Your task to perform on an android device: What's the weather going to be this weekend? Image 0: 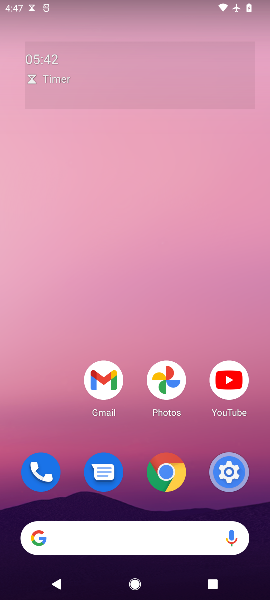
Step 0: drag from (67, 495) to (122, 174)
Your task to perform on an android device: What's the weather going to be this weekend? Image 1: 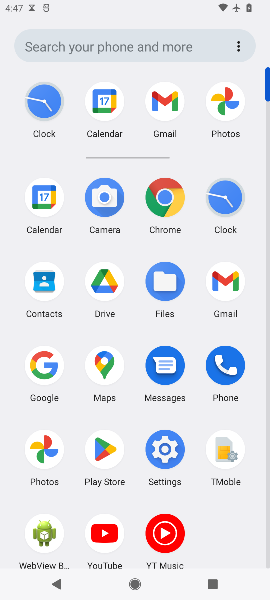
Step 1: click (34, 378)
Your task to perform on an android device: What's the weather going to be this weekend? Image 2: 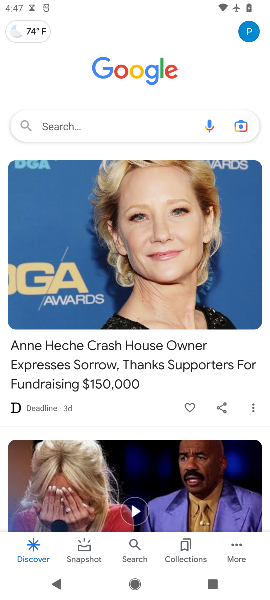
Step 2: click (122, 131)
Your task to perform on an android device: What's the weather going to be this weekend? Image 3: 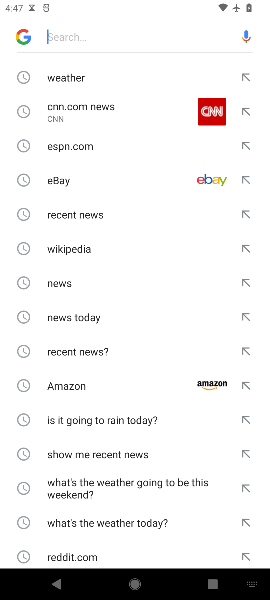
Step 3: click (84, 78)
Your task to perform on an android device: What's the weather going to be this weekend? Image 4: 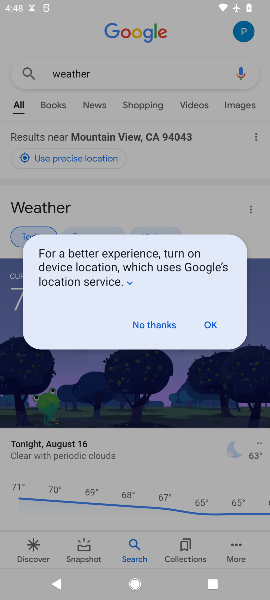
Step 4: click (164, 325)
Your task to perform on an android device: What's the weather going to be this weekend? Image 5: 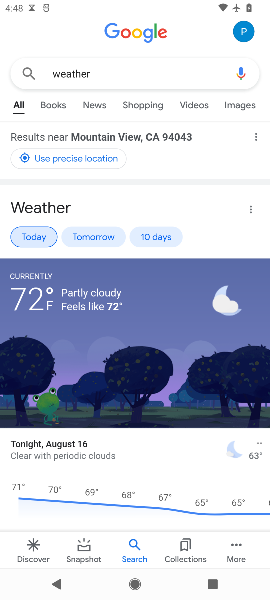
Step 5: click (146, 235)
Your task to perform on an android device: What's the weather going to be this weekend? Image 6: 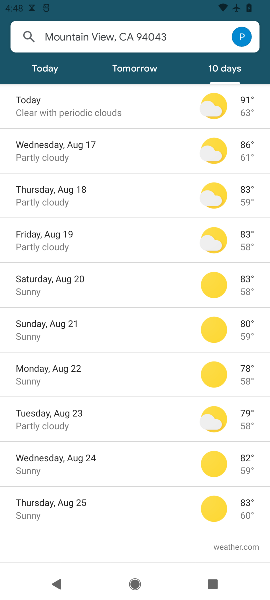
Step 6: task complete